Your task to perform on an android device: open app "Cash App" (install if not already installed) Image 0: 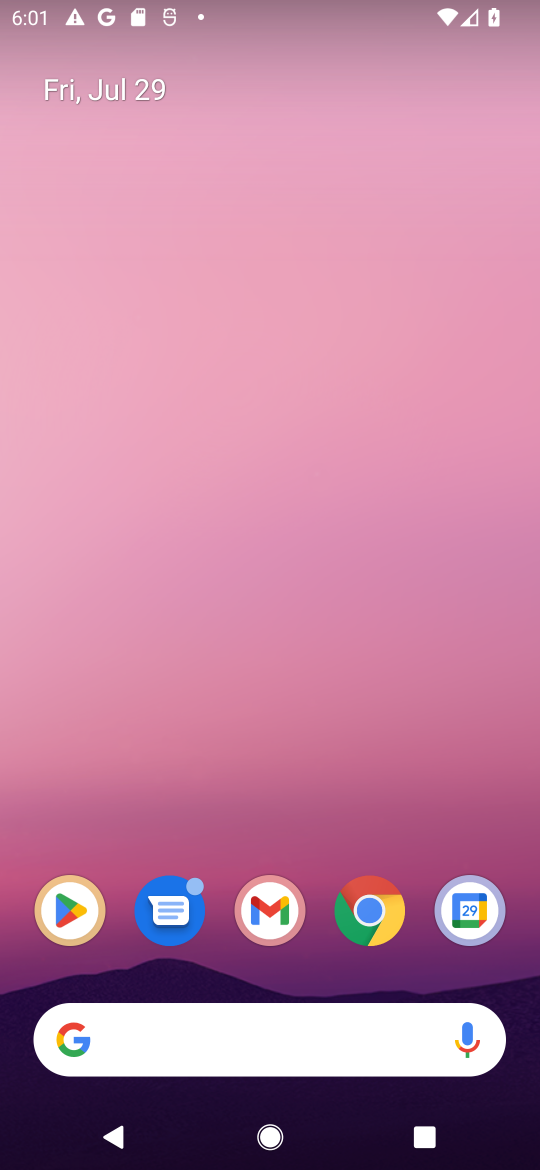
Step 0: drag from (244, 1010) to (232, 321)
Your task to perform on an android device: open app "Cash App" (install if not already installed) Image 1: 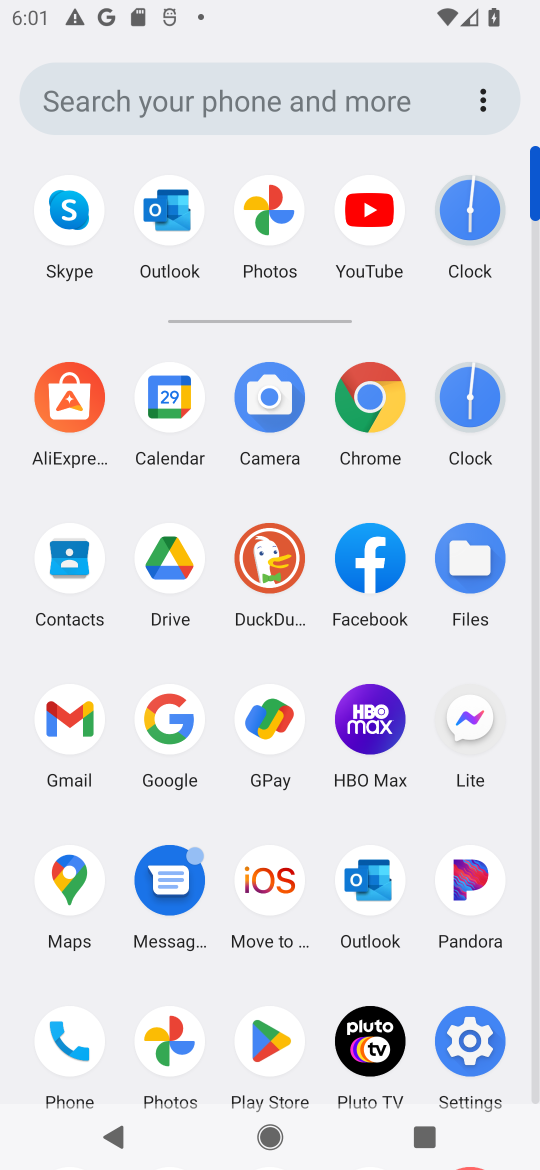
Step 1: click (270, 1040)
Your task to perform on an android device: open app "Cash App" (install if not already installed) Image 2: 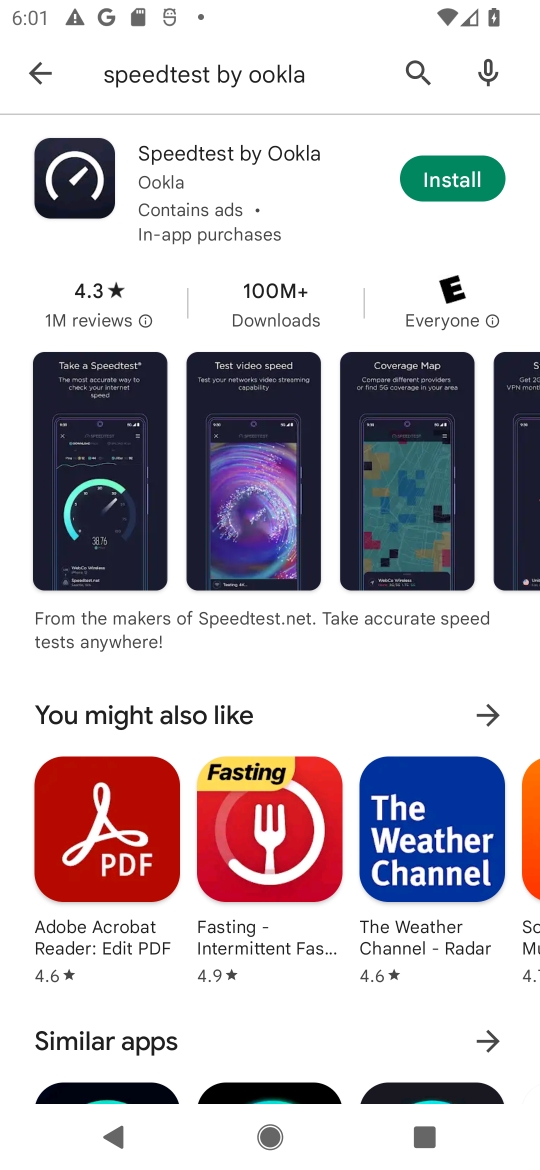
Step 2: click (417, 68)
Your task to perform on an android device: open app "Cash App" (install if not already installed) Image 3: 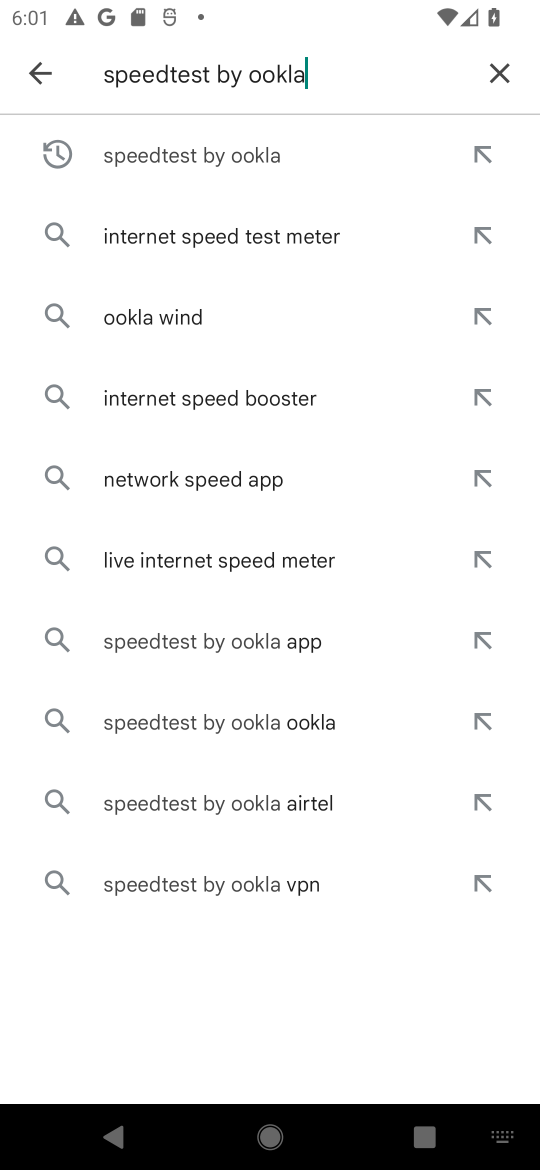
Step 3: click (496, 85)
Your task to perform on an android device: open app "Cash App" (install if not already installed) Image 4: 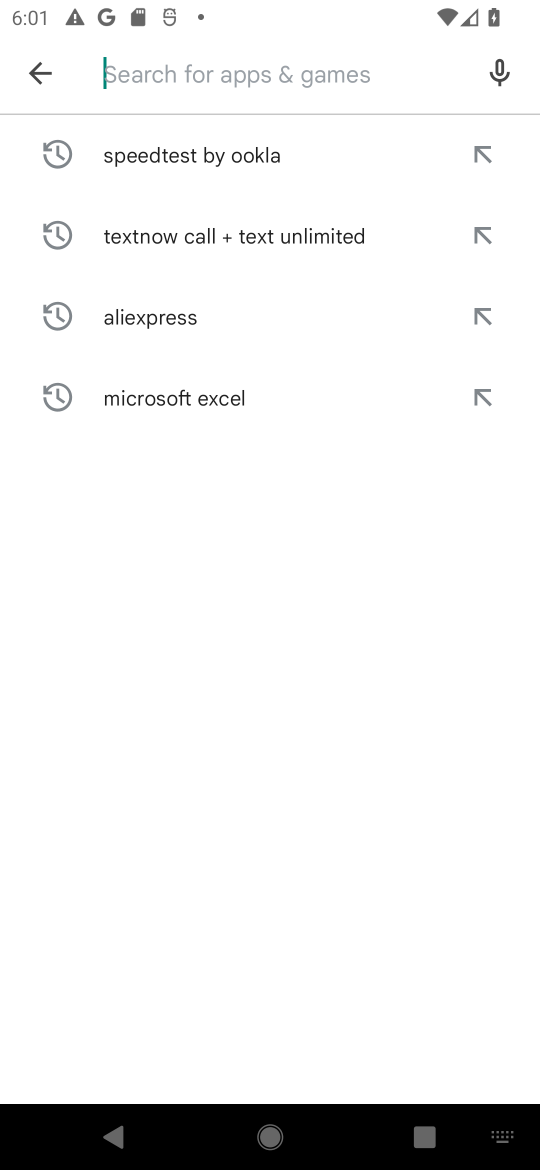
Step 4: type "Cash App"
Your task to perform on an android device: open app "Cash App" (install if not already installed) Image 5: 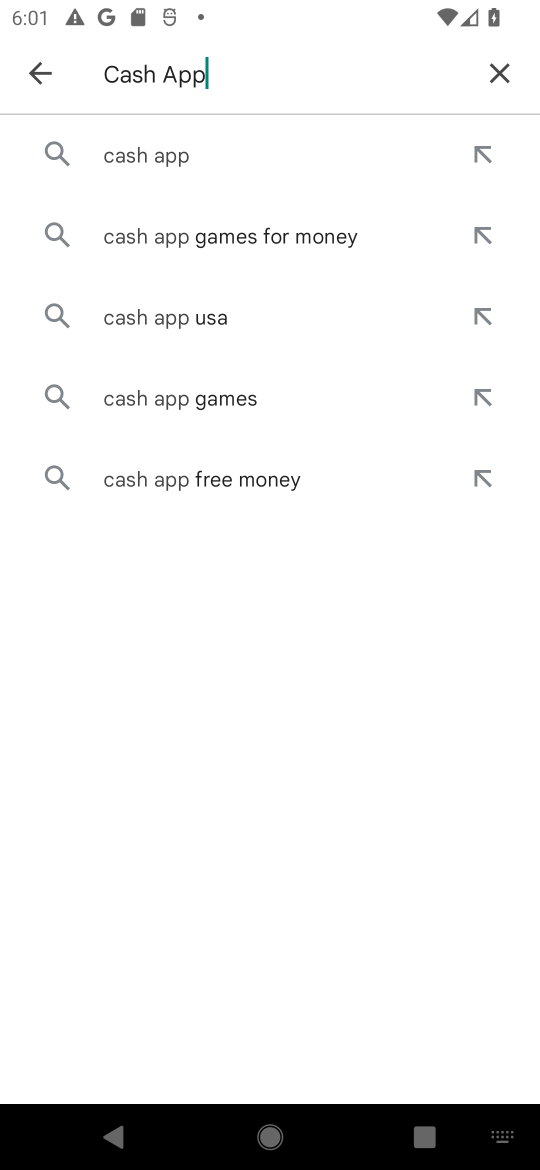
Step 5: click (158, 158)
Your task to perform on an android device: open app "Cash App" (install if not already installed) Image 6: 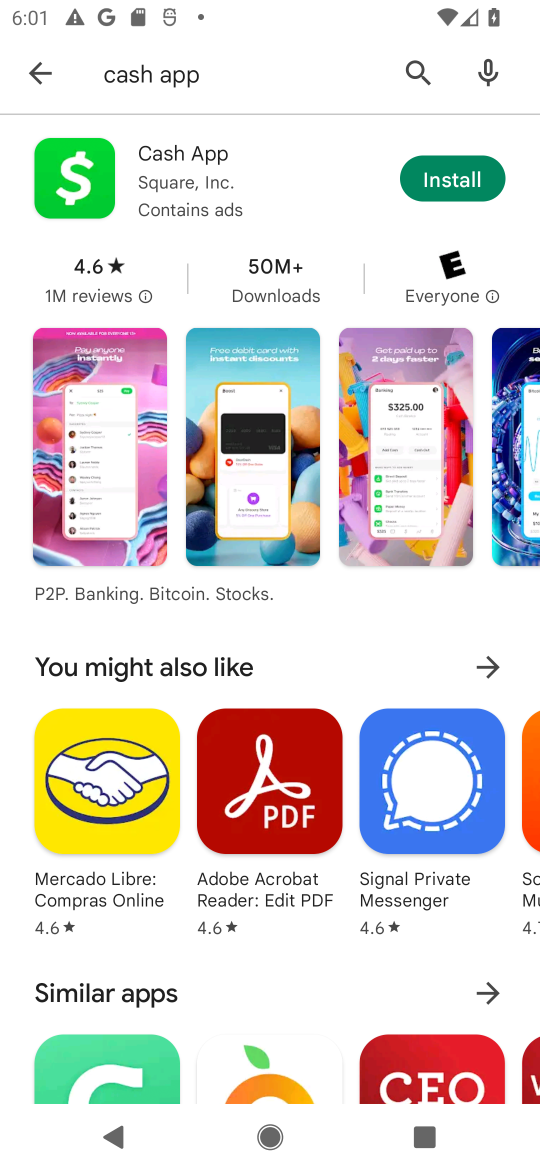
Step 6: click (450, 178)
Your task to perform on an android device: open app "Cash App" (install if not already installed) Image 7: 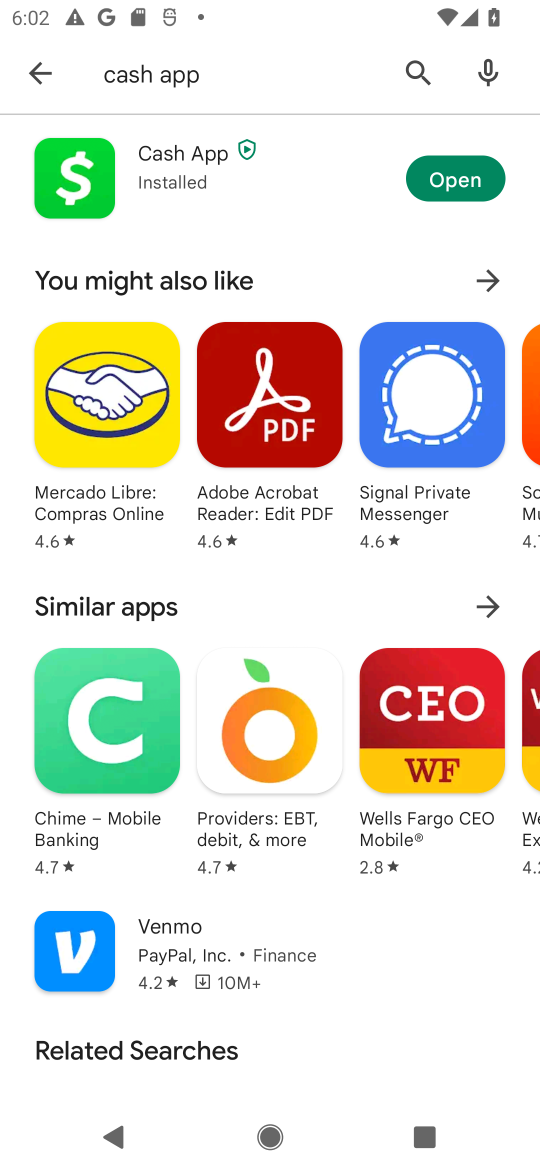
Step 7: click (440, 172)
Your task to perform on an android device: open app "Cash App" (install if not already installed) Image 8: 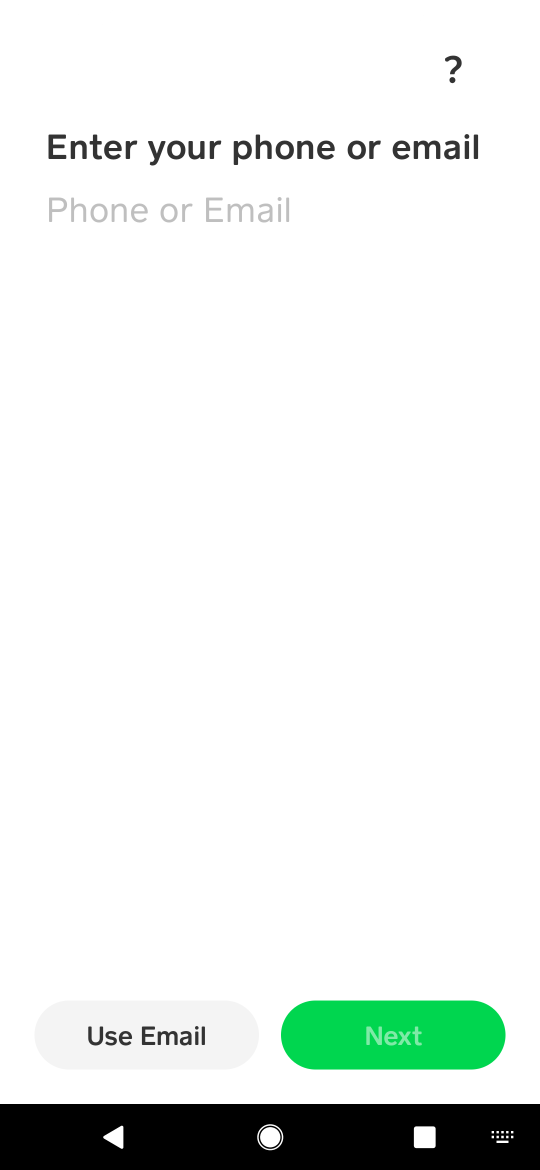
Step 8: task complete